Your task to perform on an android device: Toggle the flashlight Image 0: 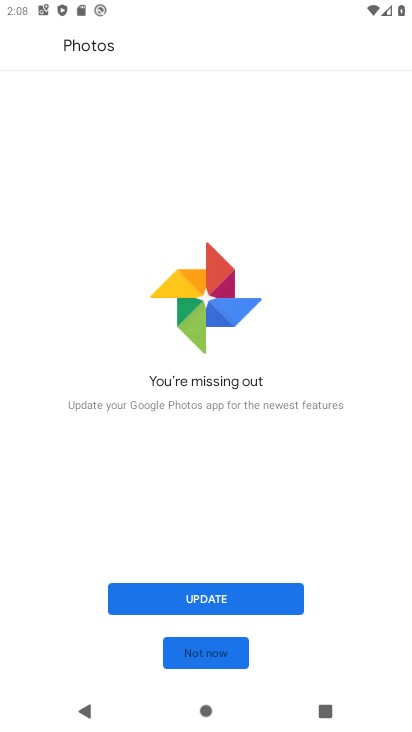
Step 0: press home button
Your task to perform on an android device: Toggle the flashlight Image 1: 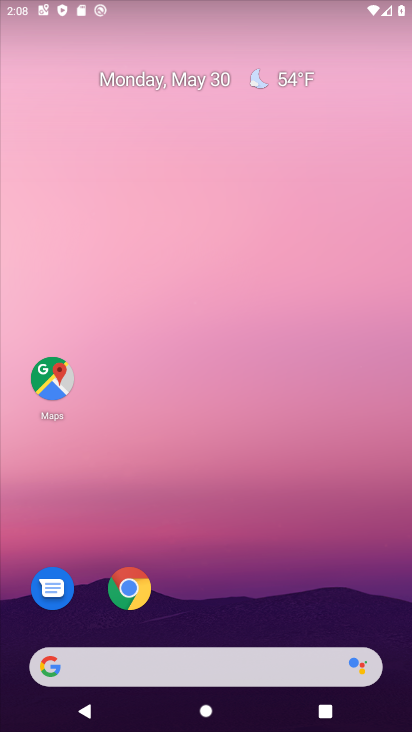
Step 1: drag from (221, 608) to (226, 70)
Your task to perform on an android device: Toggle the flashlight Image 2: 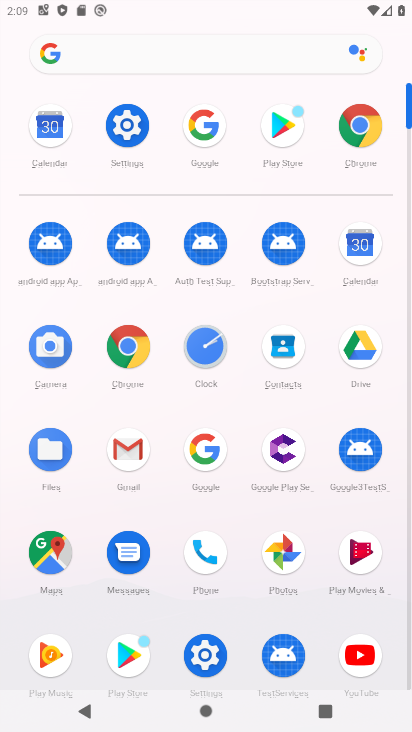
Step 2: click (206, 654)
Your task to perform on an android device: Toggle the flashlight Image 3: 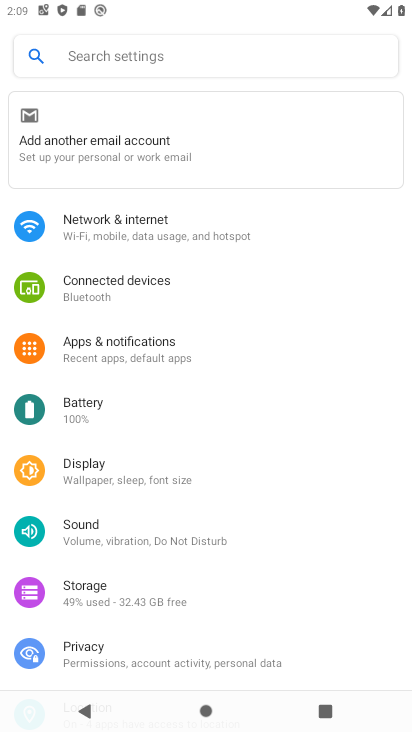
Step 3: click (192, 56)
Your task to perform on an android device: Toggle the flashlight Image 4: 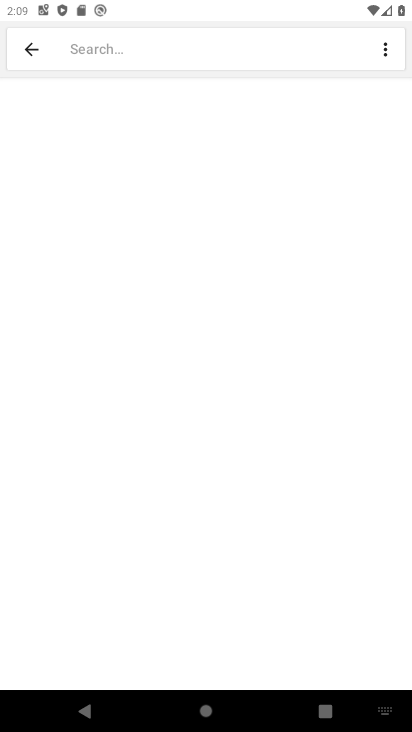
Step 4: type "flash"
Your task to perform on an android device: Toggle the flashlight Image 5: 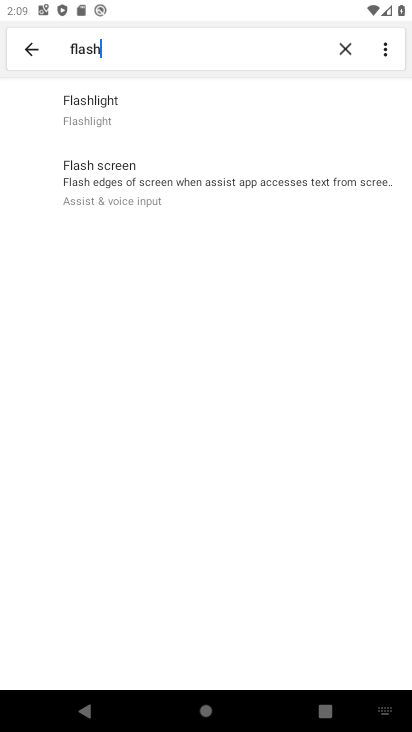
Step 5: task complete